Your task to perform on an android device: Turn off the flashlight Image 0: 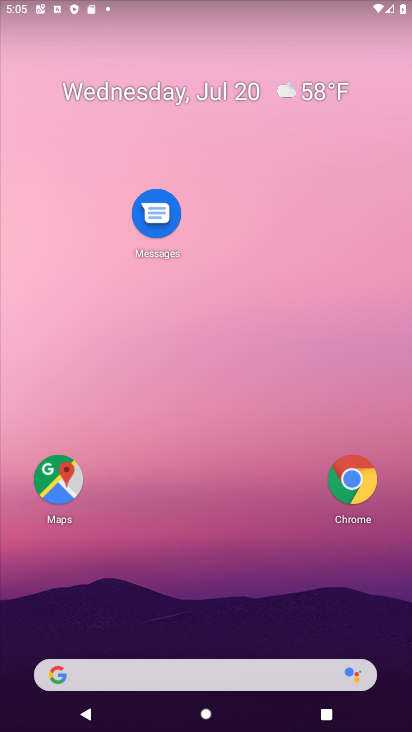
Step 0: drag from (177, 610) to (177, 92)
Your task to perform on an android device: Turn off the flashlight Image 1: 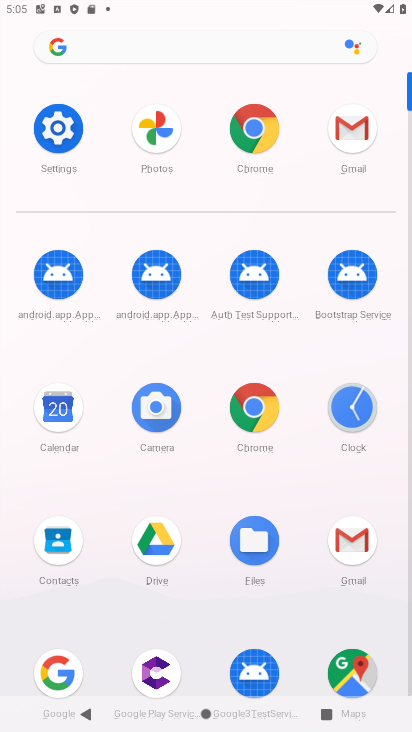
Step 1: click (55, 140)
Your task to perform on an android device: Turn off the flashlight Image 2: 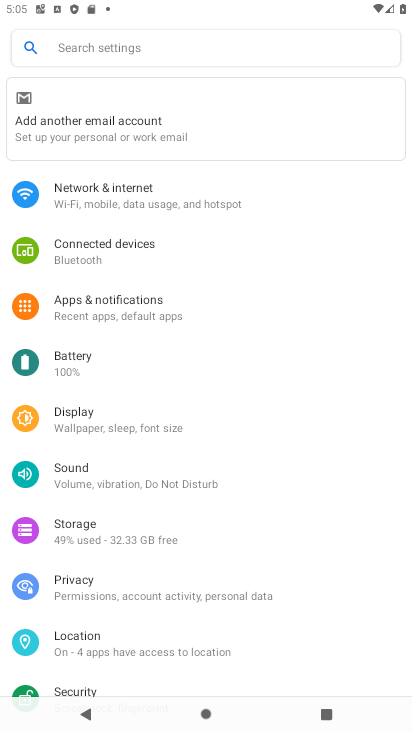
Step 2: task complete